Your task to perform on an android device: Open privacy settings Image 0: 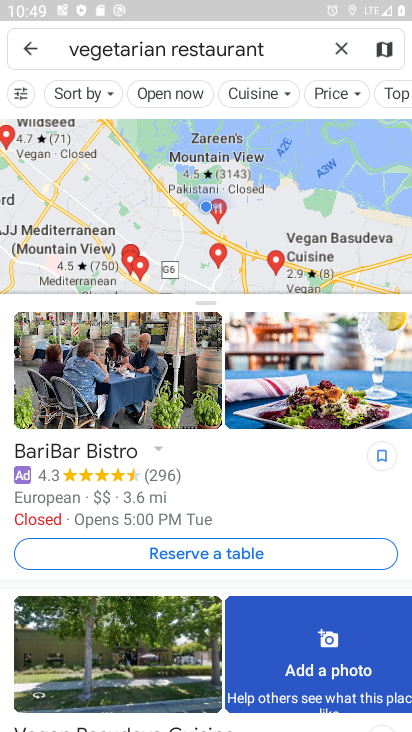
Step 0: press home button
Your task to perform on an android device: Open privacy settings Image 1: 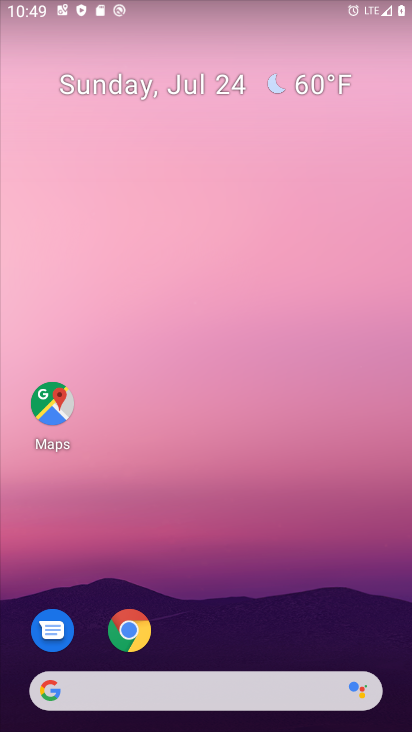
Step 1: drag from (228, 614) to (187, 6)
Your task to perform on an android device: Open privacy settings Image 2: 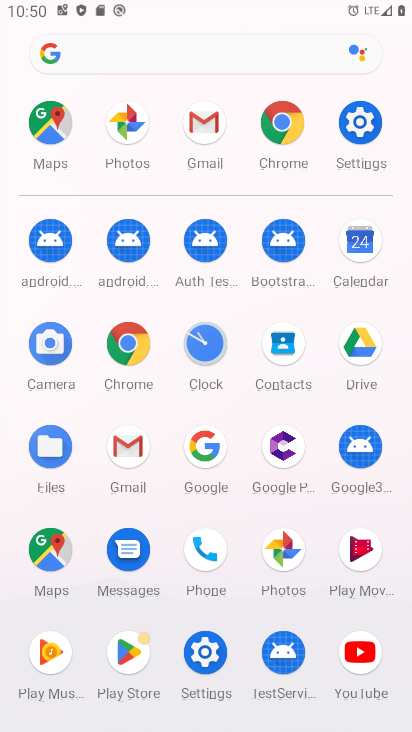
Step 2: click (212, 666)
Your task to perform on an android device: Open privacy settings Image 3: 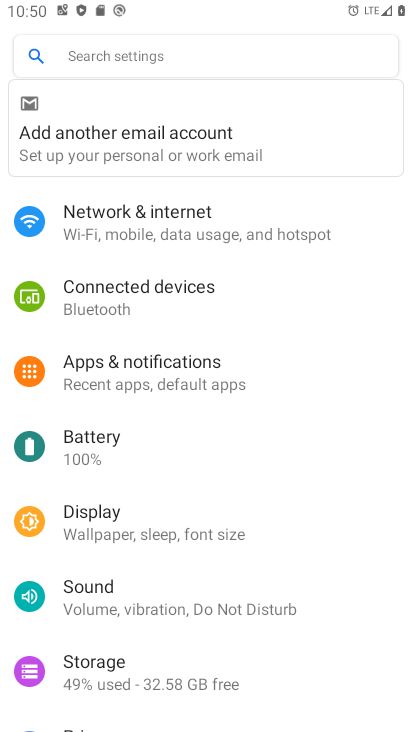
Step 3: drag from (134, 619) to (141, 441)
Your task to perform on an android device: Open privacy settings Image 4: 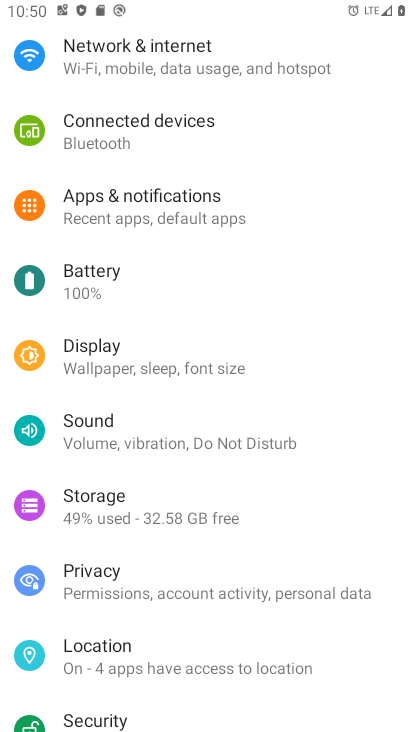
Step 4: click (103, 586)
Your task to perform on an android device: Open privacy settings Image 5: 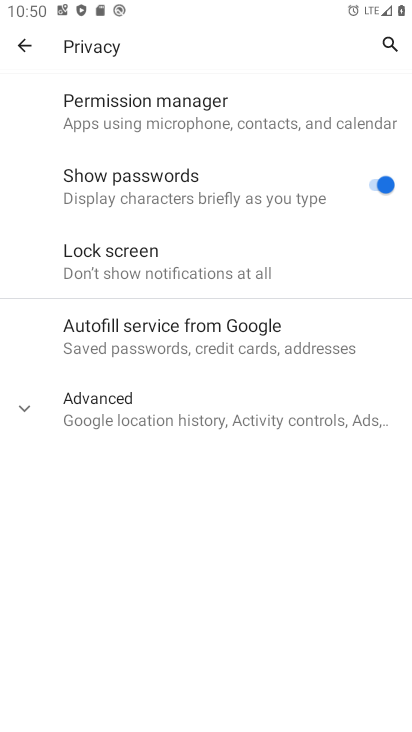
Step 5: task complete